Your task to perform on an android device: turn on translation in the chrome app Image 0: 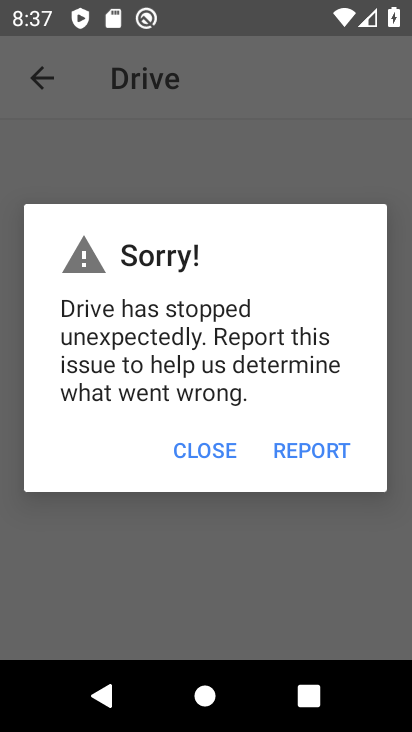
Step 0: click (247, 498)
Your task to perform on an android device: turn on translation in the chrome app Image 1: 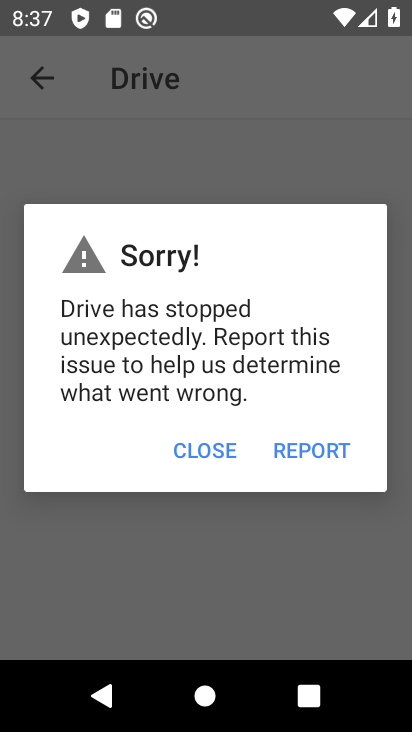
Step 1: press home button
Your task to perform on an android device: turn on translation in the chrome app Image 2: 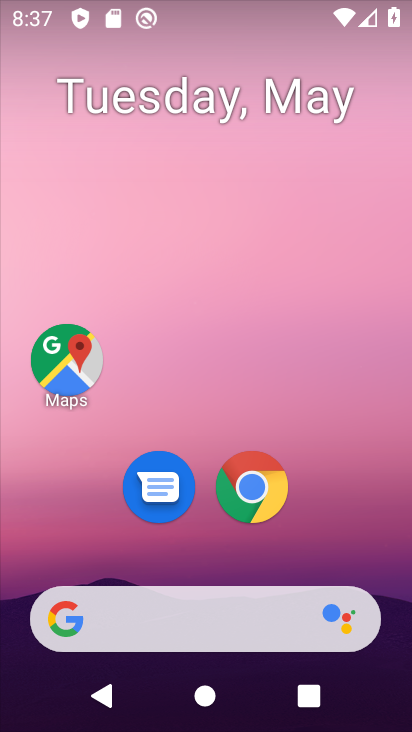
Step 2: click (244, 497)
Your task to perform on an android device: turn on translation in the chrome app Image 3: 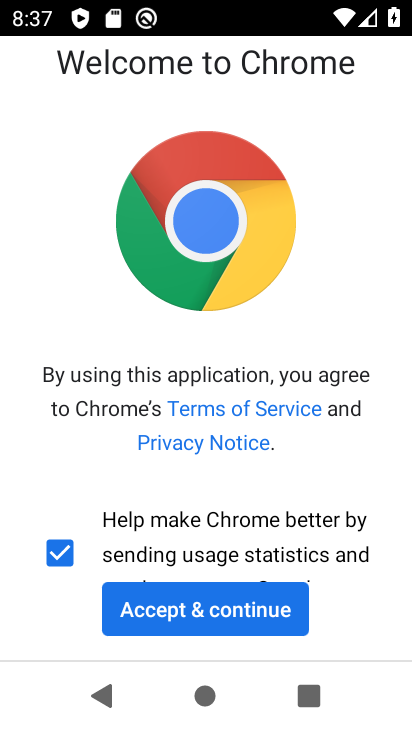
Step 3: click (221, 605)
Your task to perform on an android device: turn on translation in the chrome app Image 4: 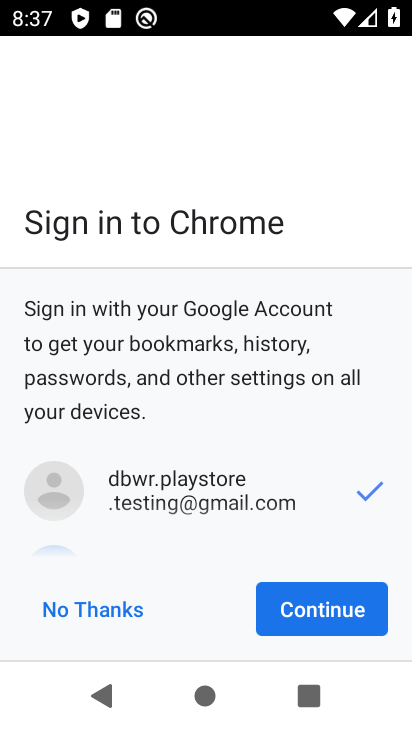
Step 4: click (305, 615)
Your task to perform on an android device: turn on translation in the chrome app Image 5: 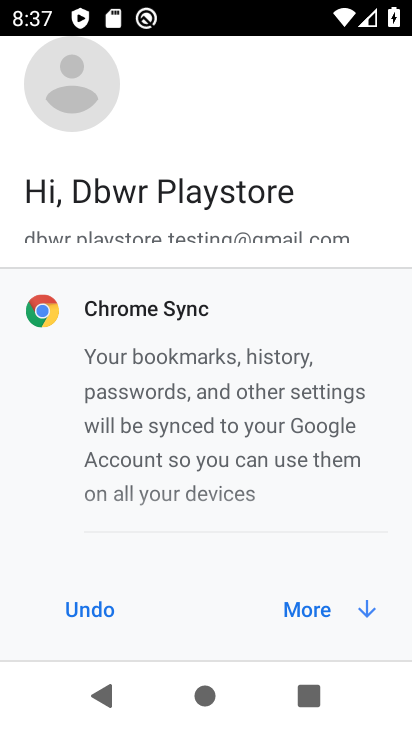
Step 5: click (305, 615)
Your task to perform on an android device: turn on translation in the chrome app Image 6: 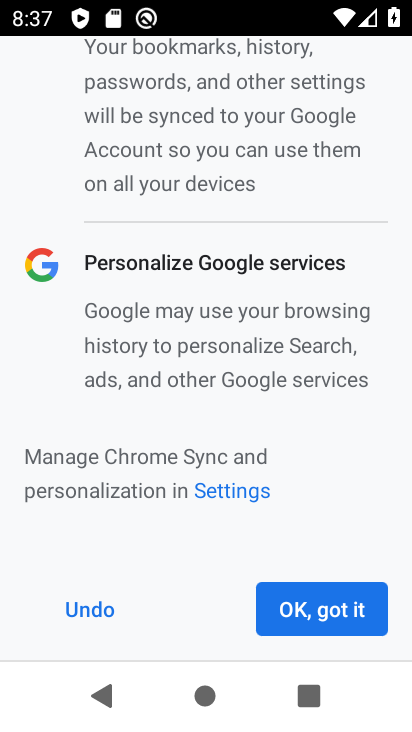
Step 6: click (305, 615)
Your task to perform on an android device: turn on translation in the chrome app Image 7: 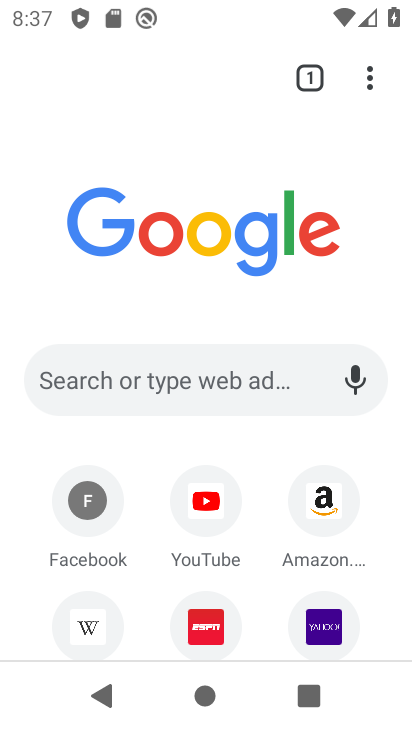
Step 7: drag from (370, 84) to (195, 546)
Your task to perform on an android device: turn on translation in the chrome app Image 8: 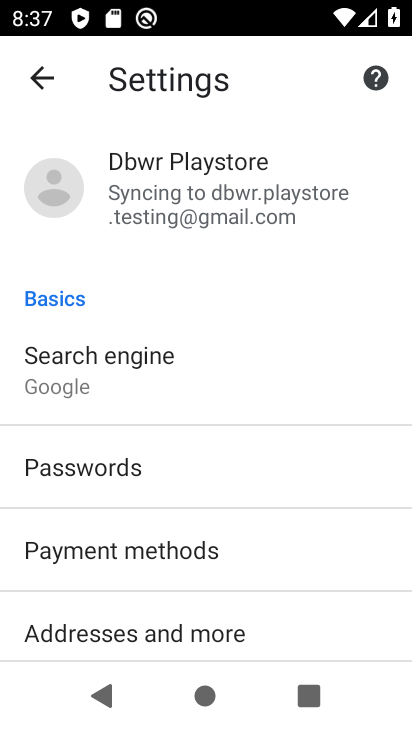
Step 8: drag from (281, 600) to (337, 118)
Your task to perform on an android device: turn on translation in the chrome app Image 9: 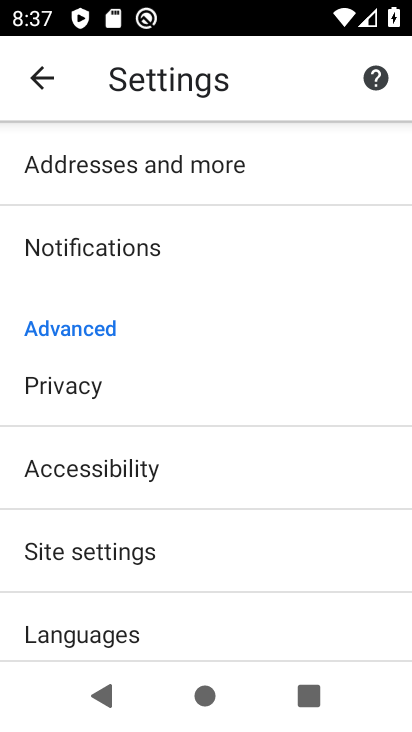
Step 9: click (122, 635)
Your task to perform on an android device: turn on translation in the chrome app Image 10: 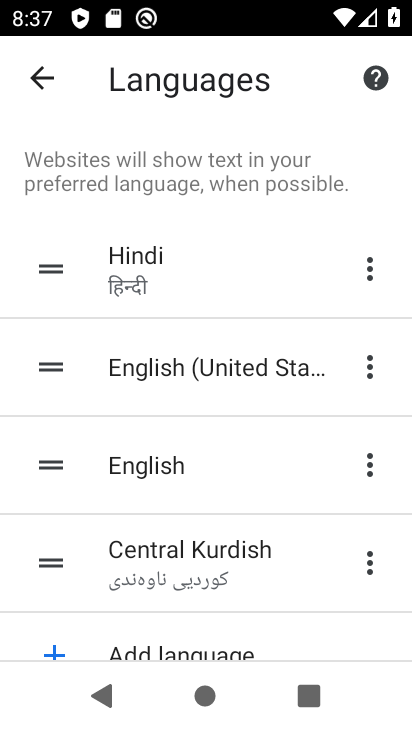
Step 10: drag from (205, 602) to (302, 300)
Your task to perform on an android device: turn on translation in the chrome app Image 11: 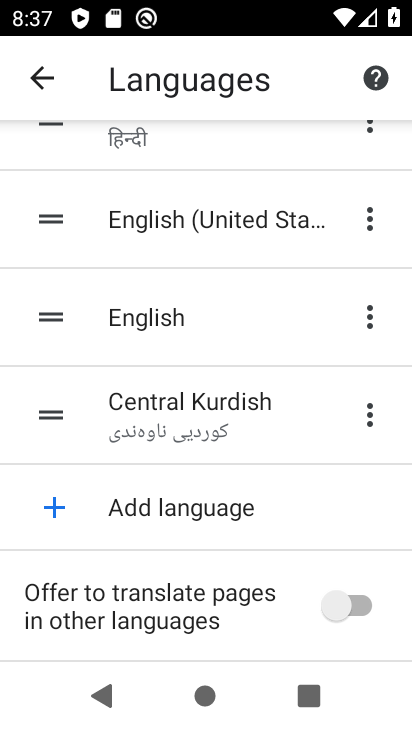
Step 11: click (370, 604)
Your task to perform on an android device: turn on translation in the chrome app Image 12: 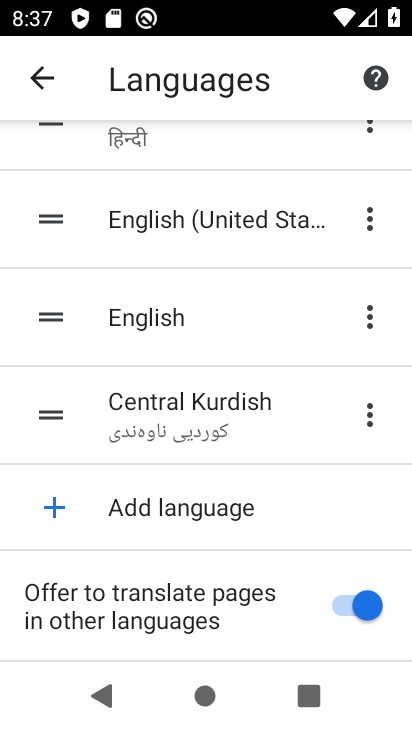
Step 12: task complete